Your task to perform on an android device: turn off smart reply in the gmail app Image 0: 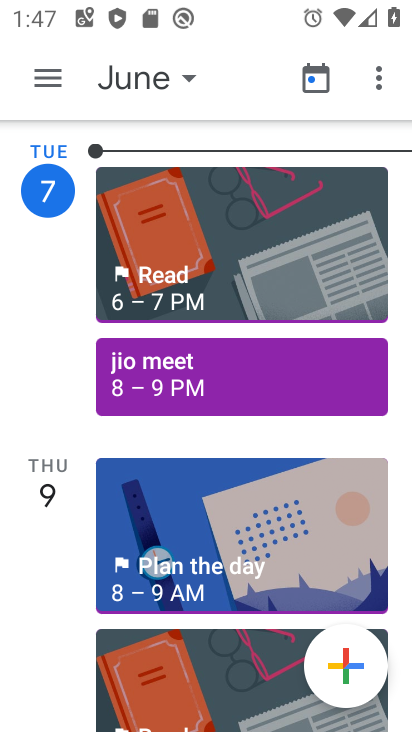
Step 0: press back button
Your task to perform on an android device: turn off smart reply in the gmail app Image 1: 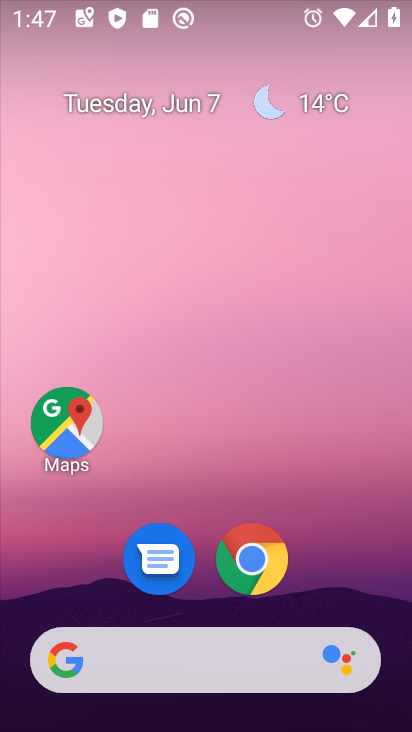
Step 1: drag from (344, 580) to (242, 16)
Your task to perform on an android device: turn off smart reply in the gmail app Image 2: 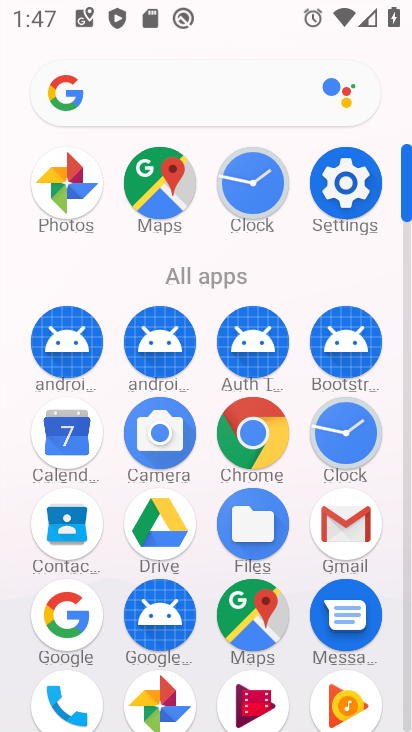
Step 2: drag from (306, 276) to (307, 127)
Your task to perform on an android device: turn off smart reply in the gmail app Image 3: 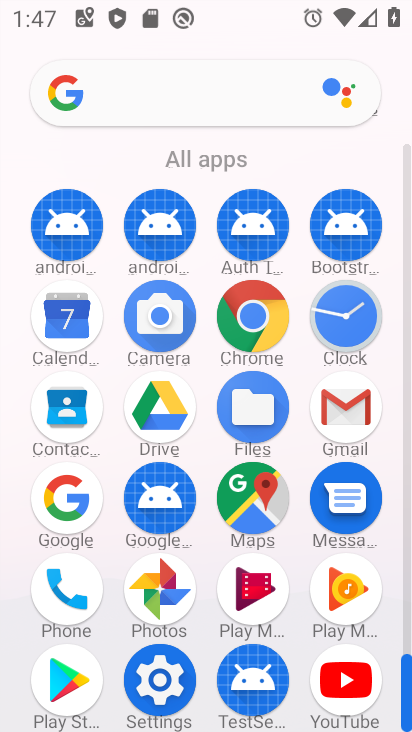
Step 3: click (345, 410)
Your task to perform on an android device: turn off smart reply in the gmail app Image 4: 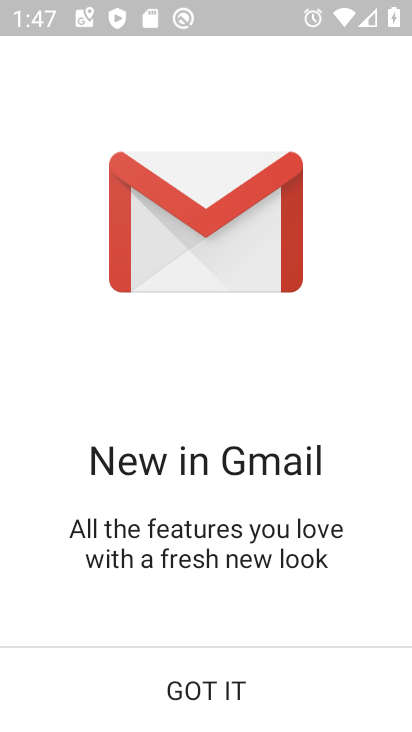
Step 4: click (203, 683)
Your task to perform on an android device: turn off smart reply in the gmail app Image 5: 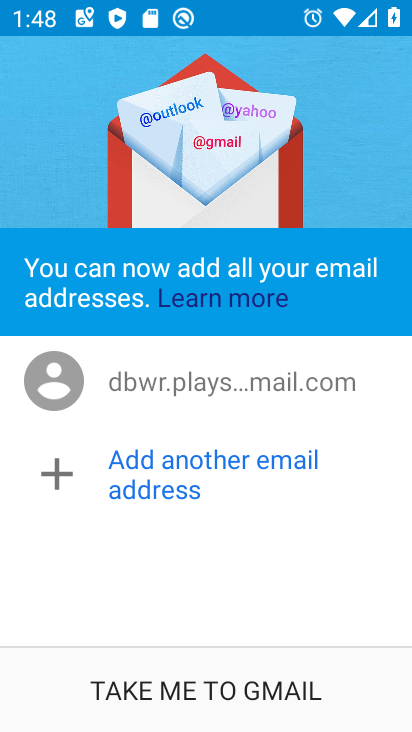
Step 5: click (203, 683)
Your task to perform on an android device: turn off smart reply in the gmail app Image 6: 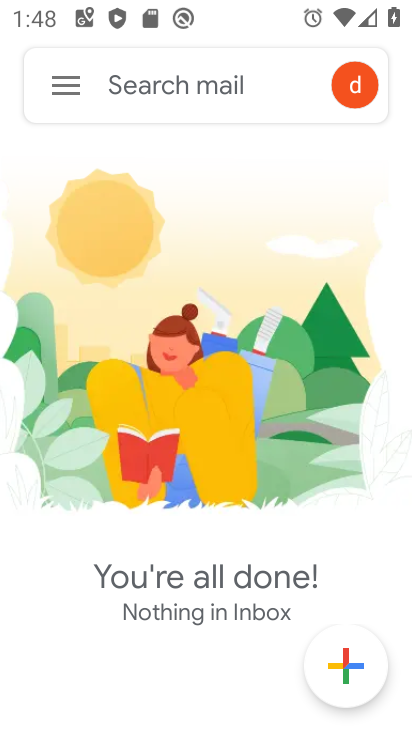
Step 6: click (75, 87)
Your task to perform on an android device: turn off smart reply in the gmail app Image 7: 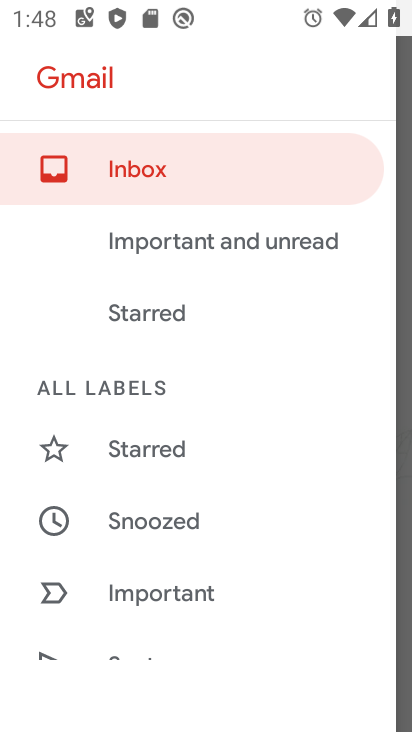
Step 7: drag from (209, 364) to (204, 192)
Your task to perform on an android device: turn off smart reply in the gmail app Image 8: 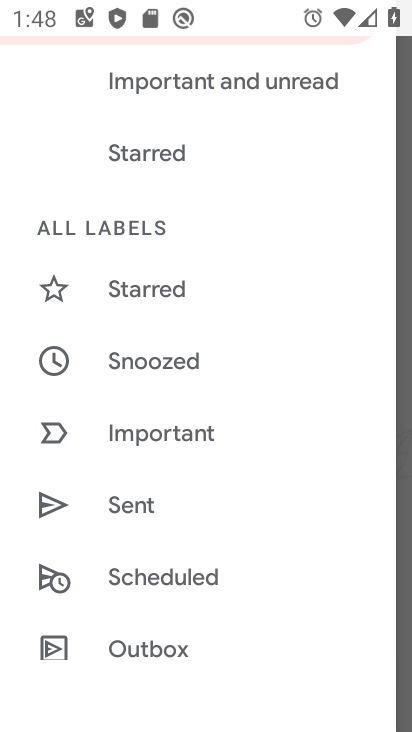
Step 8: drag from (169, 391) to (162, 254)
Your task to perform on an android device: turn off smart reply in the gmail app Image 9: 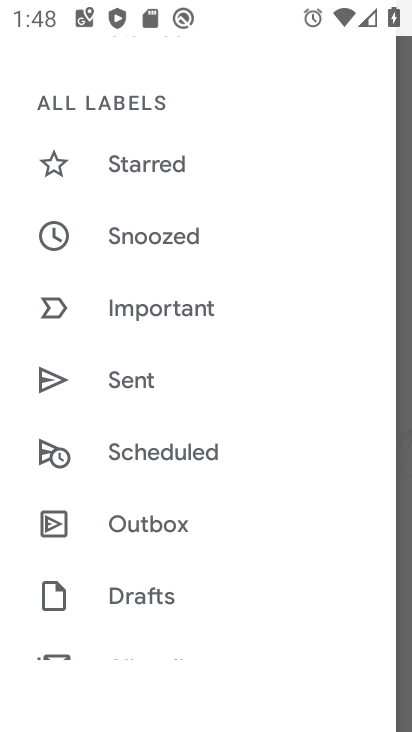
Step 9: drag from (157, 411) to (183, 272)
Your task to perform on an android device: turn off smart reply in the gmail app Image 10: 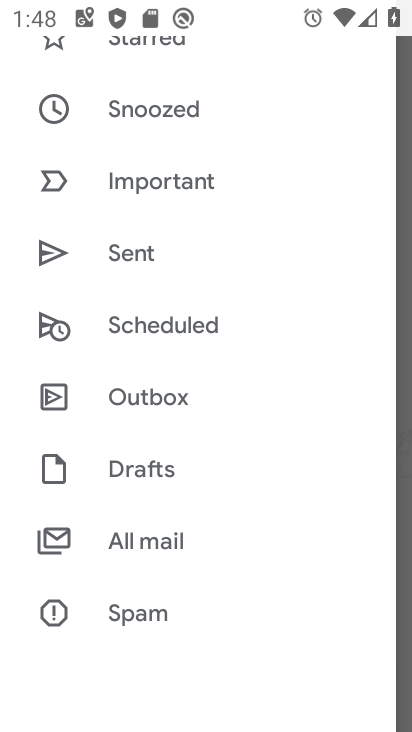
Step 10: drag from (145, 370) to (171, 220)
Your task to perform on an android device: turn off smart reply in the gmail app Image 11: 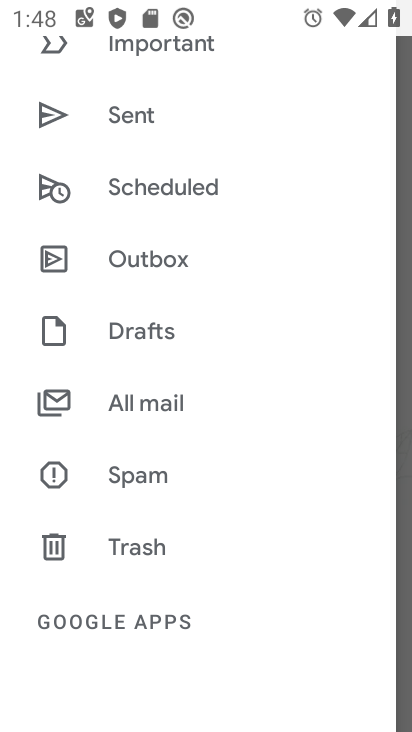
Step 11: drag from (134, 303) to (108, 134)
Your task to perform on an android device: turn off smart reply in the gmail app Image 12: 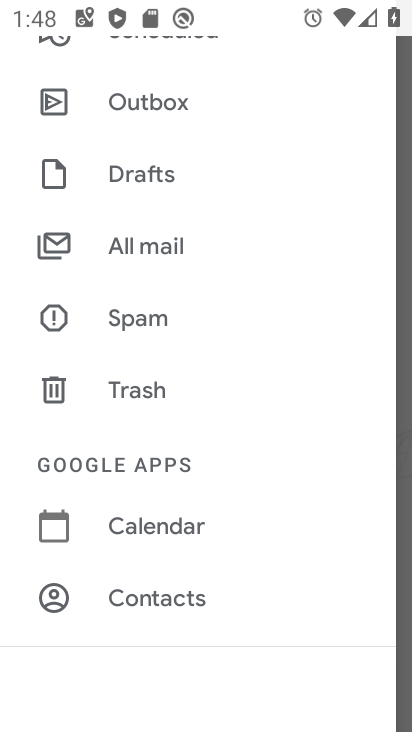
Step 12: drag from (121, 349) to (120, 244)
Your task to perform on an android device: turn off smart reply in the gmail app Image 13: 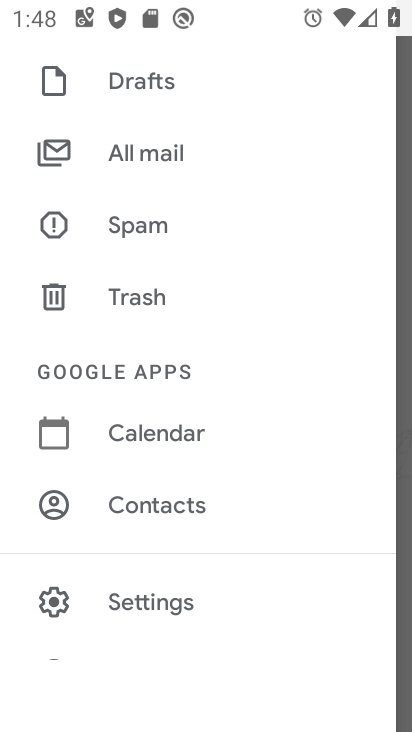
Step 13: drag from (139, 519) to (174, 362)
Your task to perform on an android device: turn off smart reply in the gmail app Image 14: 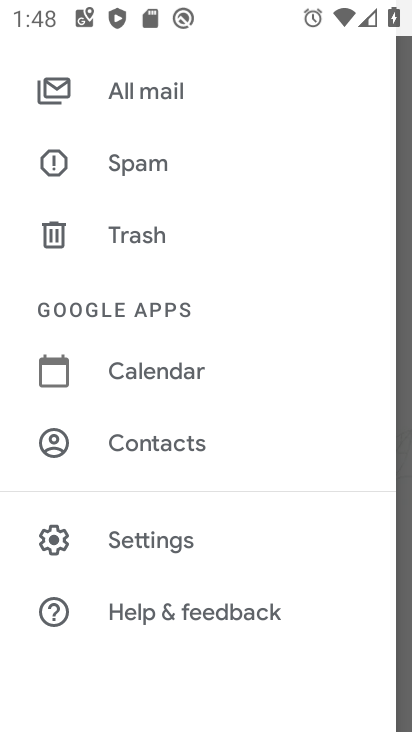
Step 14: click (158, 533)
Your task to perform on an android device: turn off smart reply in the gmail app Image 15: 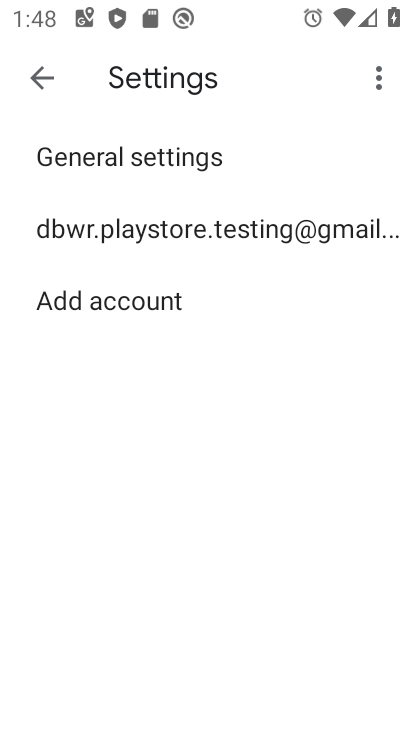
Step 15: click (222, 224)
Your task to perform on an android device: turn off smart reply in the gmail app Image 16: 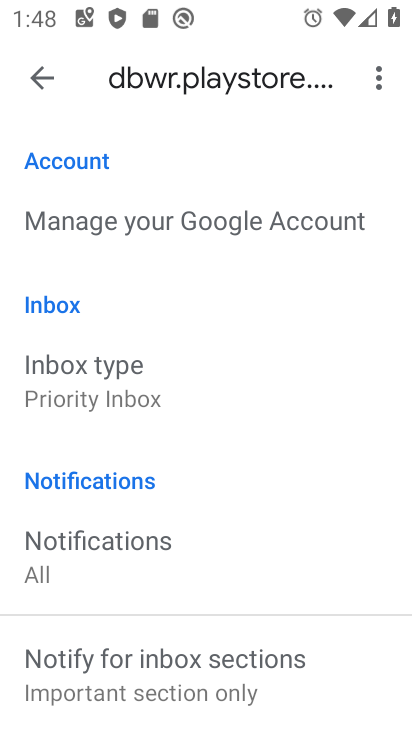
Step 16: drag from (157, 568) to (152, 408)
Your task to perform on an android device: turn off smart reply in the gmail app Image 17: 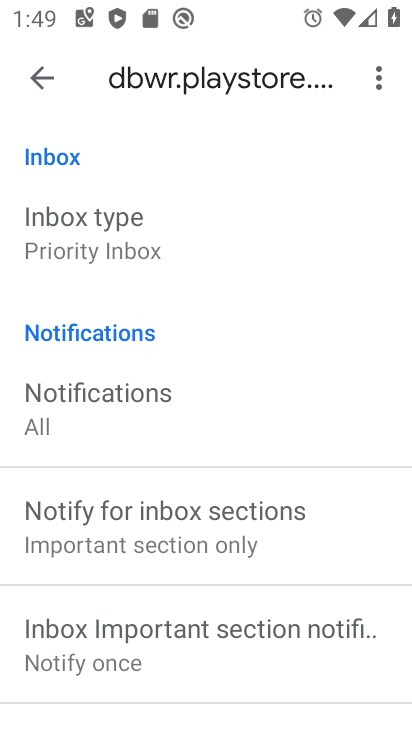
Step 17: drag from (180, 656) to (192, 358)
Your task to perform on an android device: turn off smart reply in the gmail app Image 18: 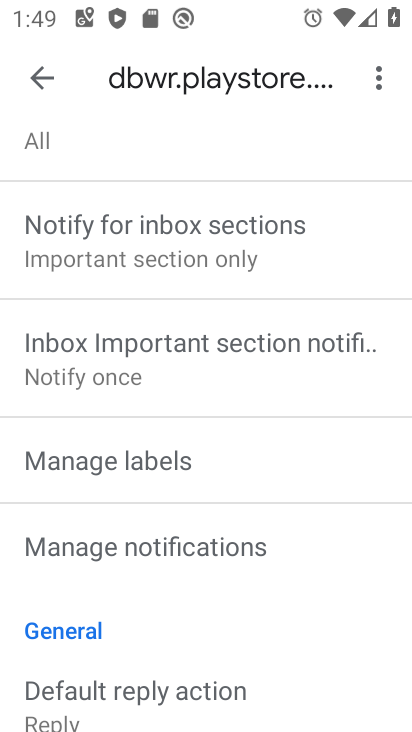
Step 18: drag from (160, 614) to (148, 335)
Your task to perform on an android device: turn off smart reply in the gmail app Image 19: 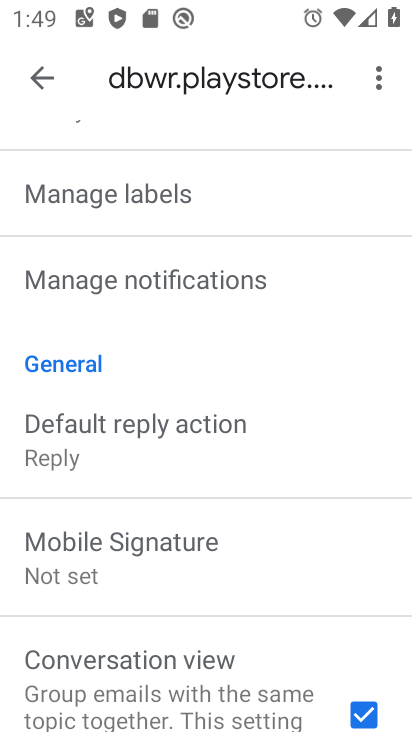
Step 19: drag from (152, 474) to (137, 254)
Your task to perform on an android device: turn off smart reply in the gmail app Image 20: 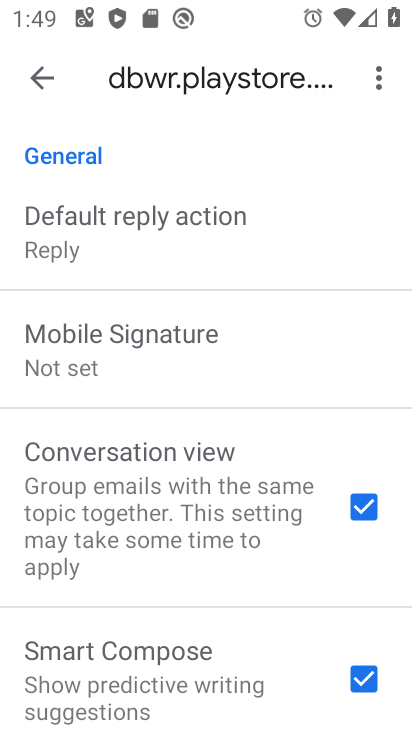
Step 20: drag from (129, 426) to (142, 221)
Your task to perform on an android device: turn off smart reply in the gmail app Image 21: 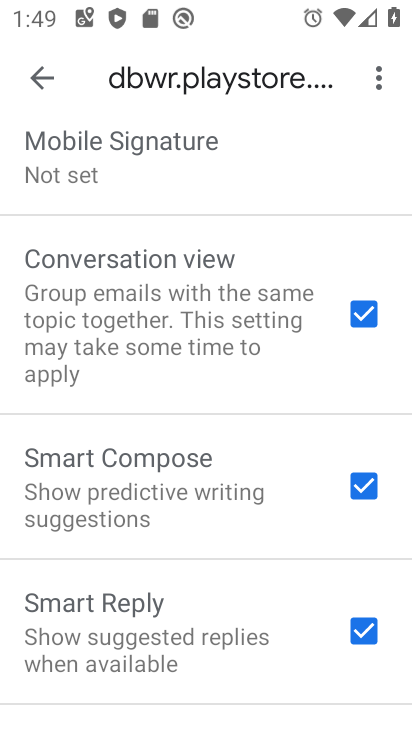
Step 21: click (356, 631)
Your task to perform on an android device: turn off smart reply in the gmail app Image 22: 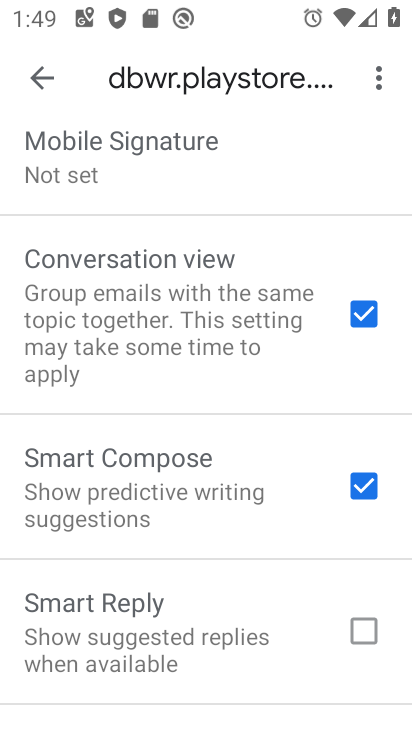
Step 22: task complete